Your task to perform on an android device: open app "Adobe Express: Graphic Design" (install if not already installed) Image 0: 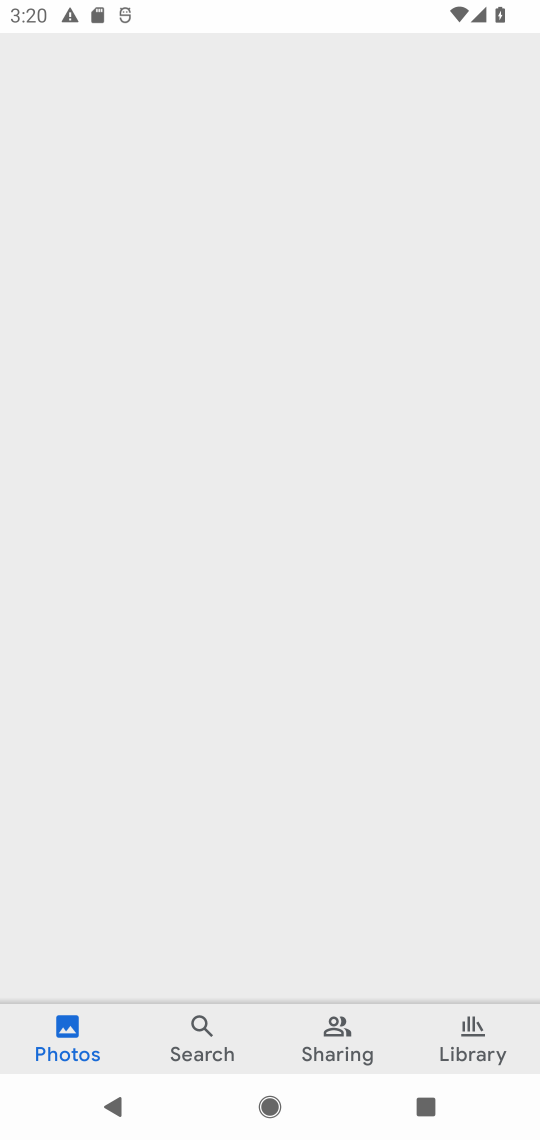
Step 0: press home button
Your task to perform on an android device: open app "Adobe Express: Graphic Design" (install if not already installed) Image 1: 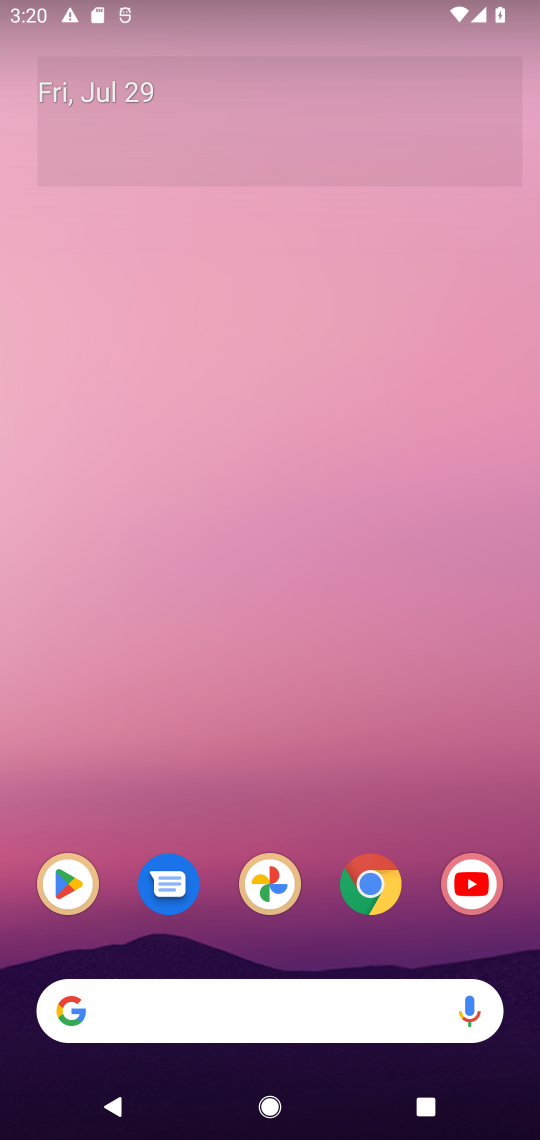
Step 1: click (251, 988)
Your task to perform on an android device: open app "Adobe Express: Graphic Design" (install if not already installed) Image 2: 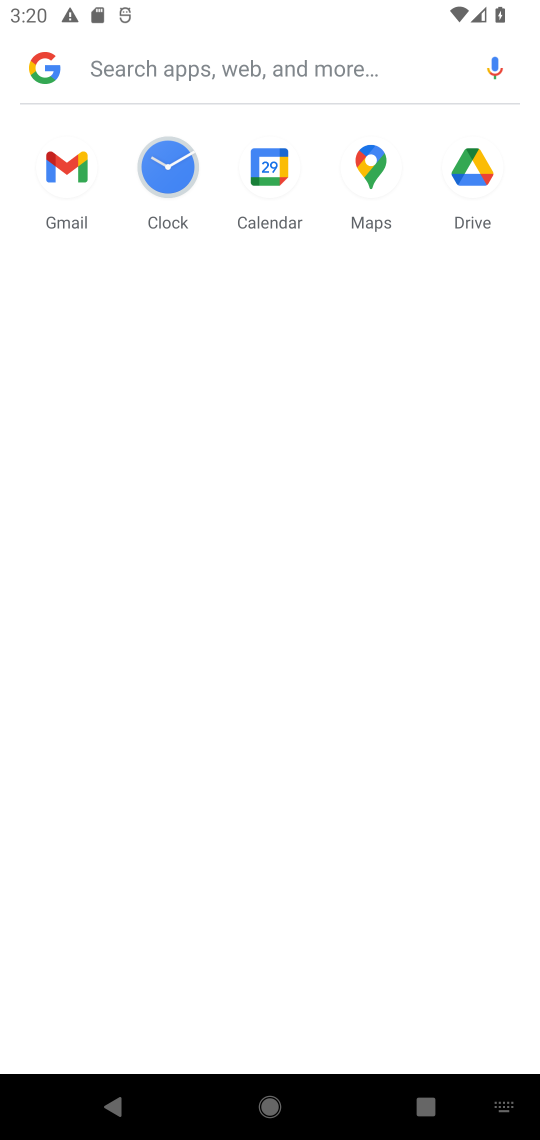
Step 2: type "adobe Express"
Your task to perform on an android device: open app "Adobe Express: Graphic Design" (install if not already installed) Image 3: 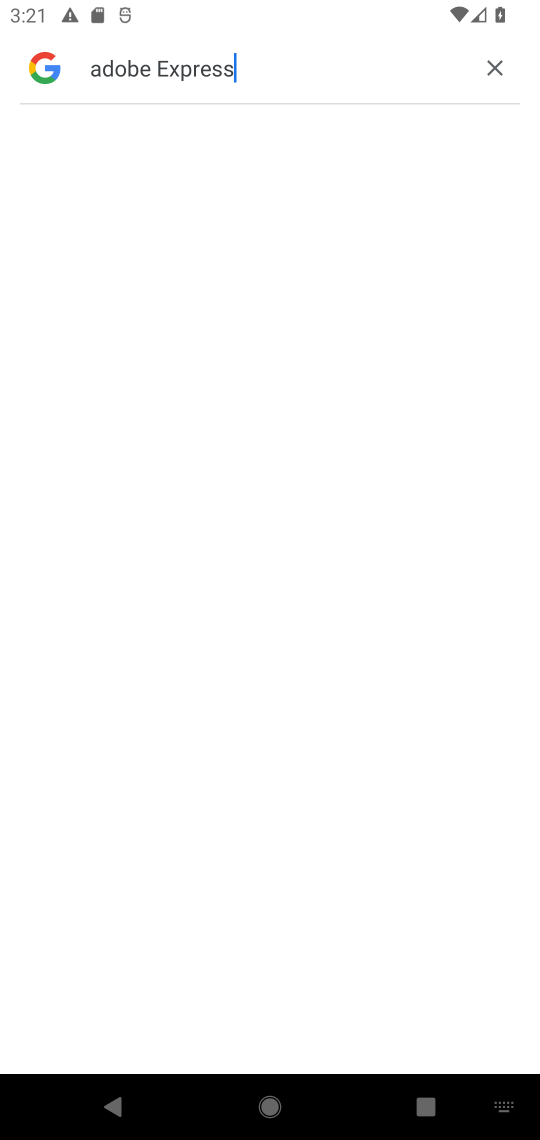
Step 3: task complete